Your task to perform on an android device: Open notification settings Image 0: 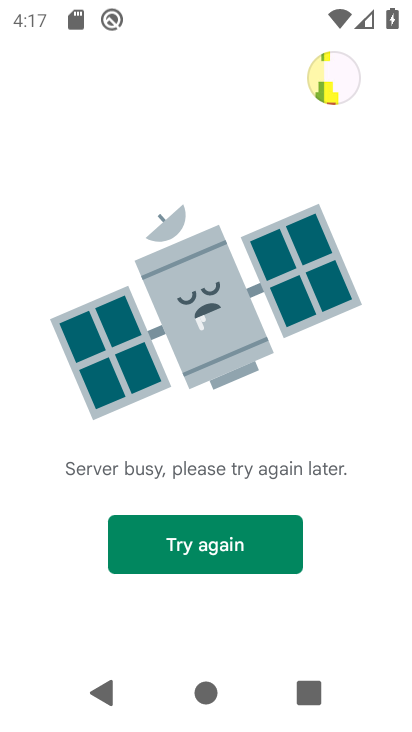
Step 0: press home button
Your task to perform on an android device: Open notification settings Image 1: 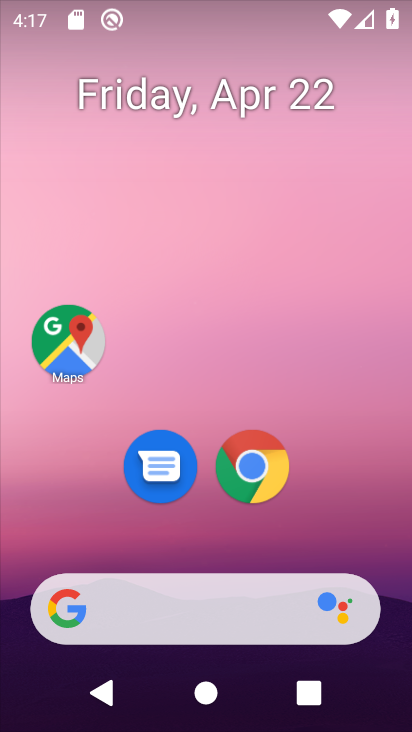
Step 1: drag from (331, 533) to (284, 243)
Your task to perform on an android device: Open notification settings Image 2: 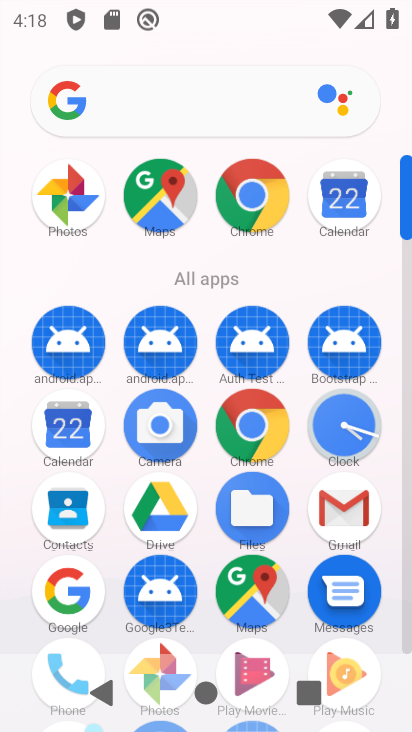
Step 2: click (408, 647)
Your task to perform on an android device: Open notification settings Image 3: 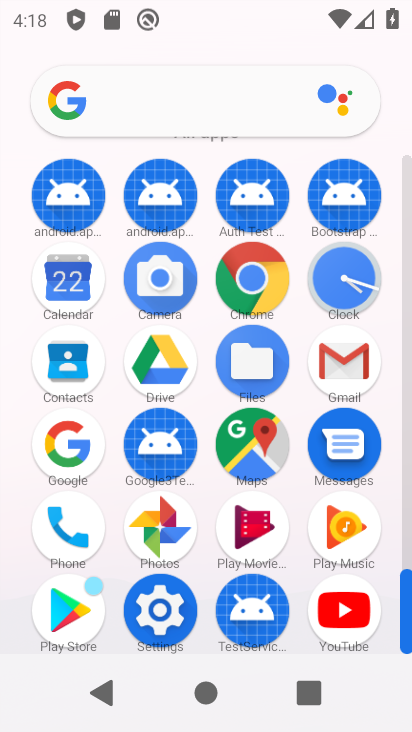
Step 3: click (148, 609)
Your task to perform on an android device: Open notification settings Image 4: 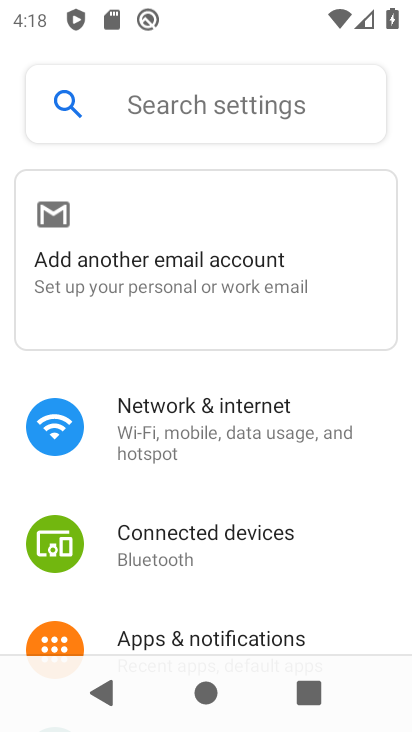
Step 4: drag from (257, 587) to (283, 297)
Your task to perform on an android device: Open notification settings Image 5: 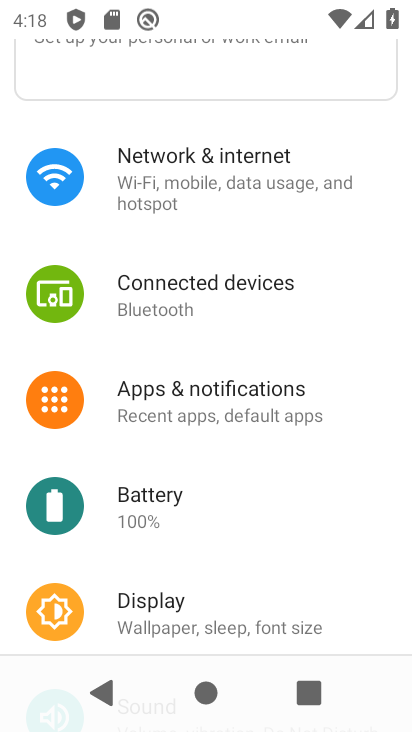
Step 5: click (273, 398)
Your task to perform on an android device: Open notification settings Image 6: 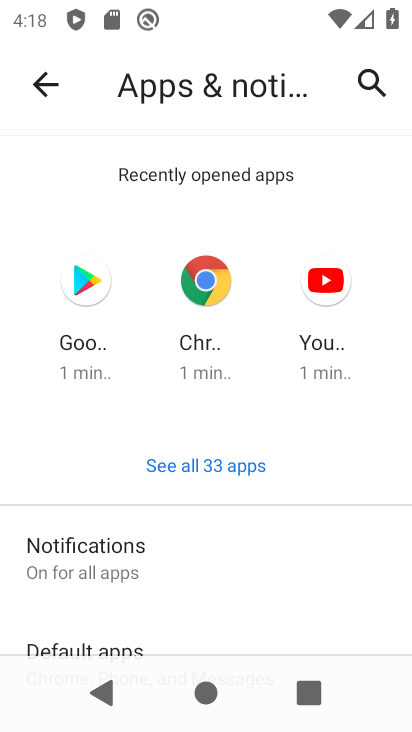
Step 6: click (265, 557)
Your task to perform on an android device: Open notification settings Image 7: 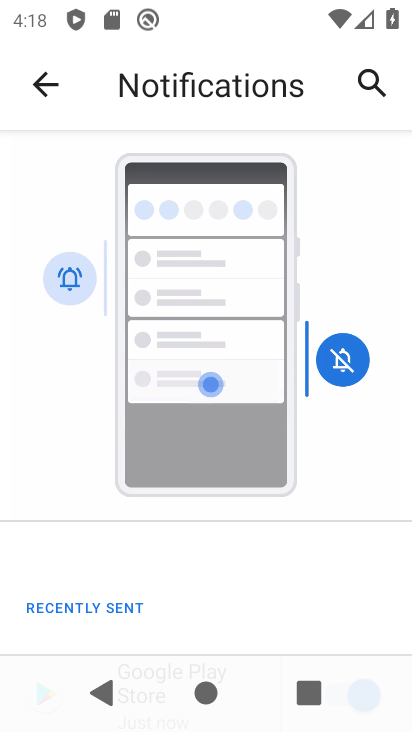
Step 7: drag from (265, 557) to (265, 175)
Your task to perform on an android device: Open notification settings Image 8: 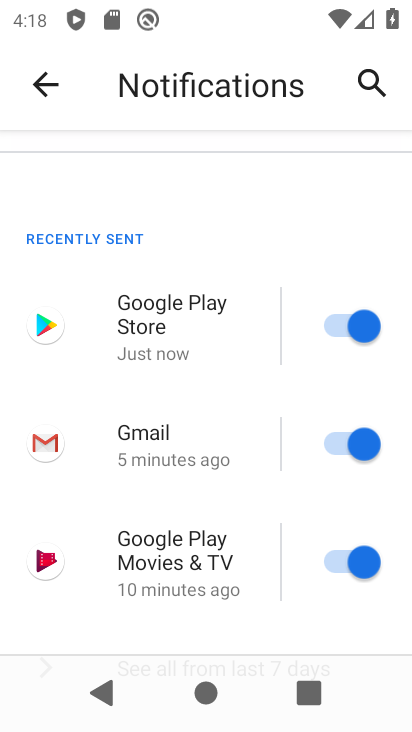
Step 8: drag from (254, 615) to (264, 344)
Your task to perform on an android device: Open notification settings Image 9: 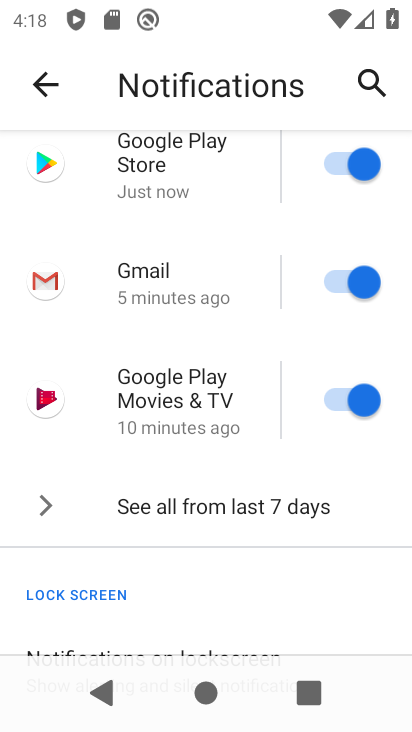
Step 9: drag from (272, 572) to (233, 424)
Your task to perform on an android device: Open notification settings Image 10: 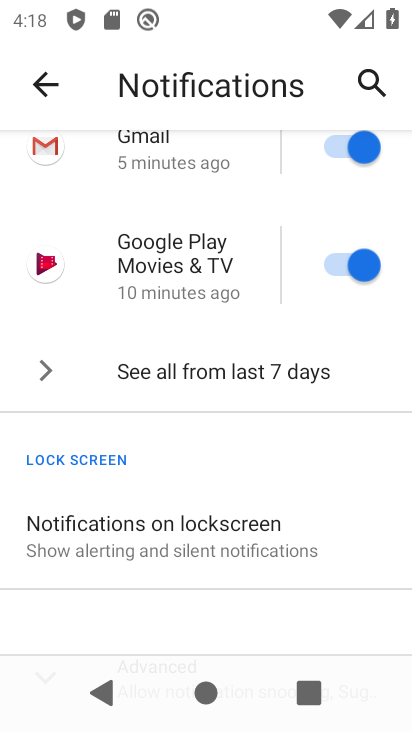
Step 10: drag from (236, 467) to (236, 219)
Your task to perform on an android device: Open notification settings Image 11: 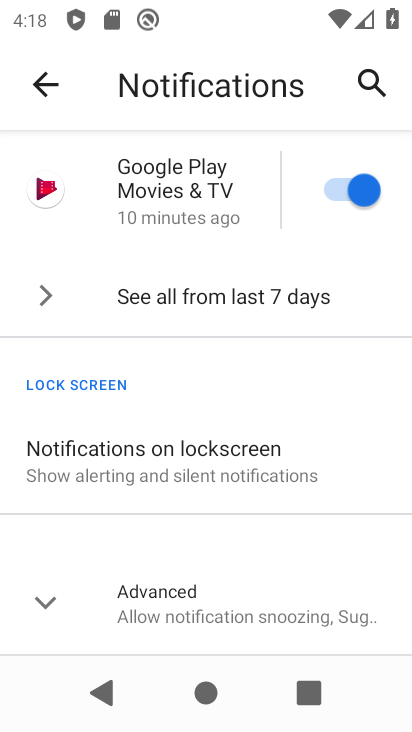
Step 11: click (266, 600)
Your task to perform on an android device: Open notification settings Image 12: 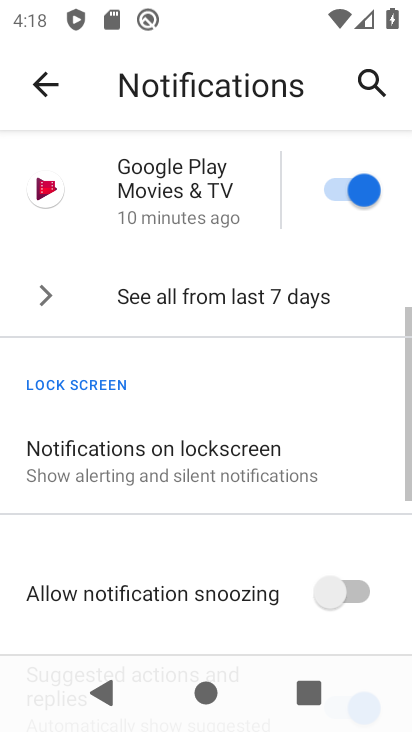
Step 12: task complete